Your task to perform on an android device: Open the map Image 0: 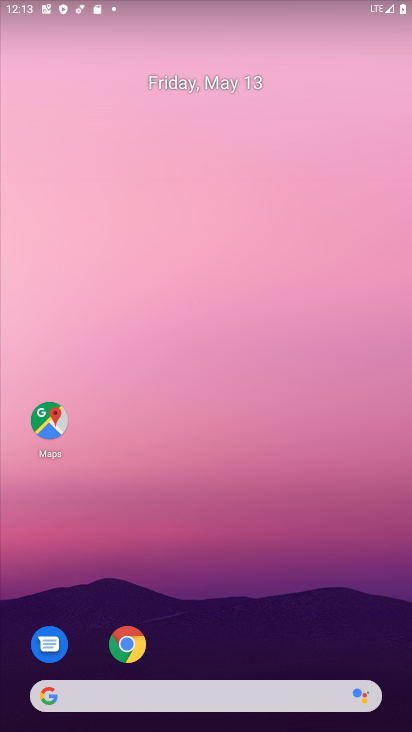
Step 0: drag from (339, 614) to (245, 26)
Your task to perform on an android device: Open the map Image 1: 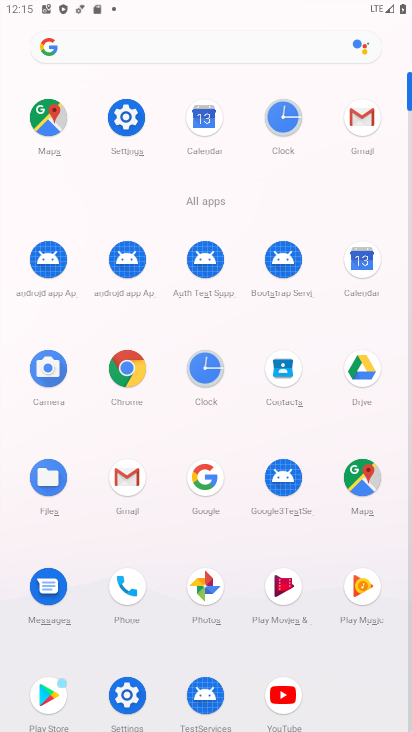
Step 1: click (380, 485)
Your task to perform on an android device: Open the map Image 2: 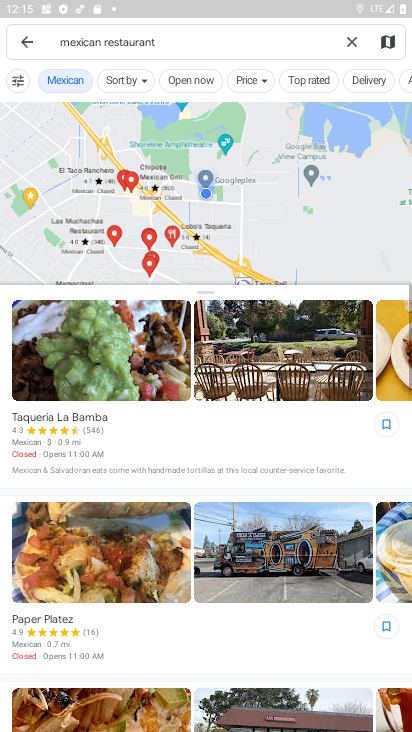
Step 2: click (350, 51)
Your task to perform on an android device: Open the map Image 3: 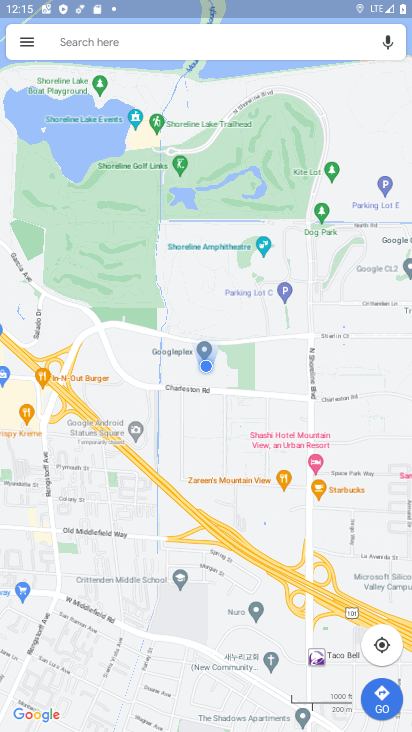
Step 3: task complete